Your task to perform on an android device: Open Youtube and go to the subscriptions tab Image 0: 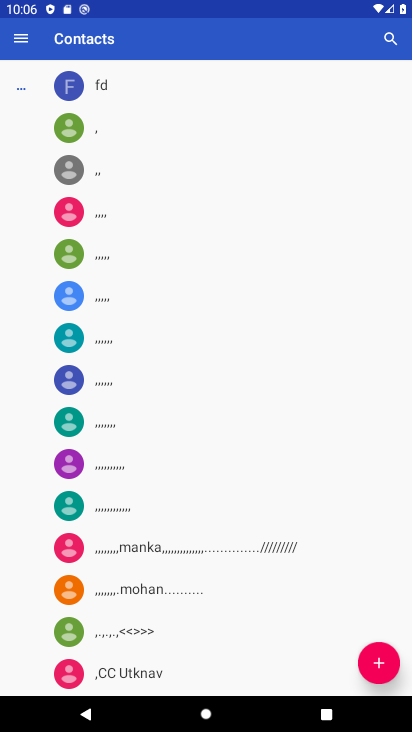
Step 0: press home button
Your task to perform on an android device: Open Youtube and go to the subscriptions tab Image 1: 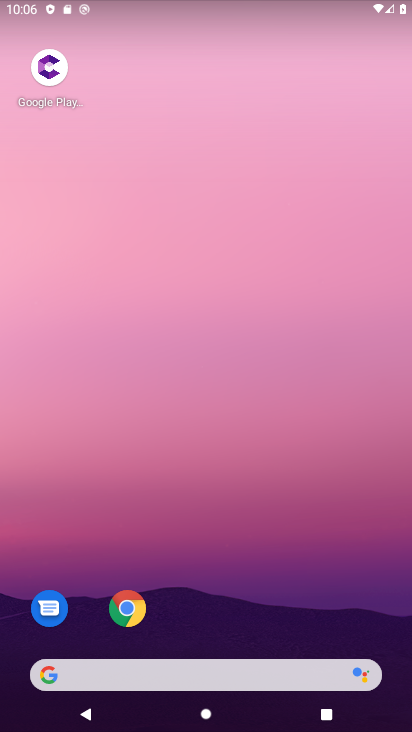
Step 1: drag from (386, 646) to (339, 160)
Your task to perform on an android device: Open Youtube and go to the subscriptions tab Image 2: 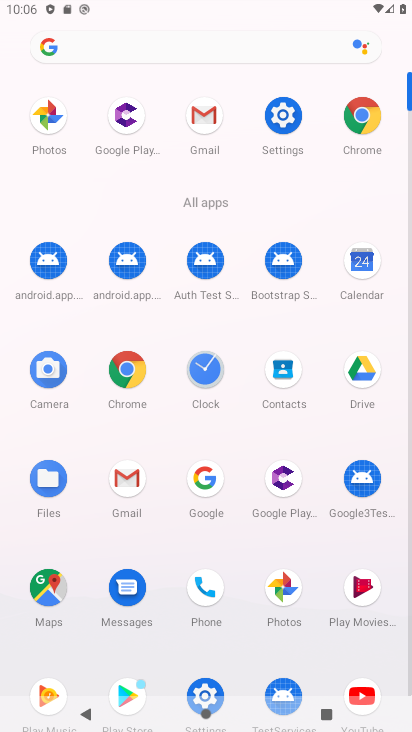
Step 2: click (409, 682)
Your task to perform on an android device: Open Youtube and go to the subscriptions tab Image 3: 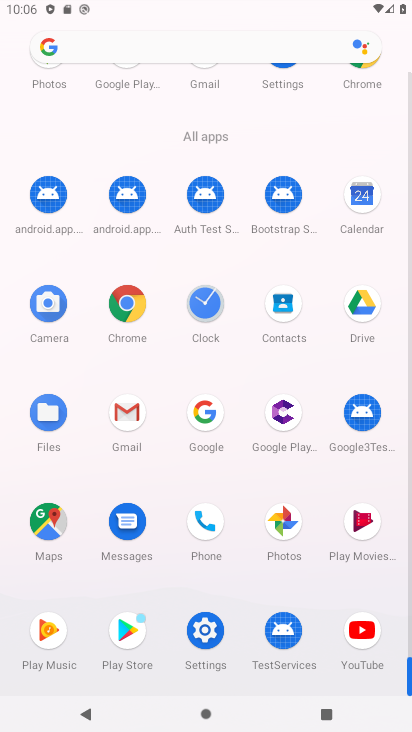
Step 3: click (361, 633)
Your task to perform on an android device: Open Youtube and go to the subscriptions tab Image 4: 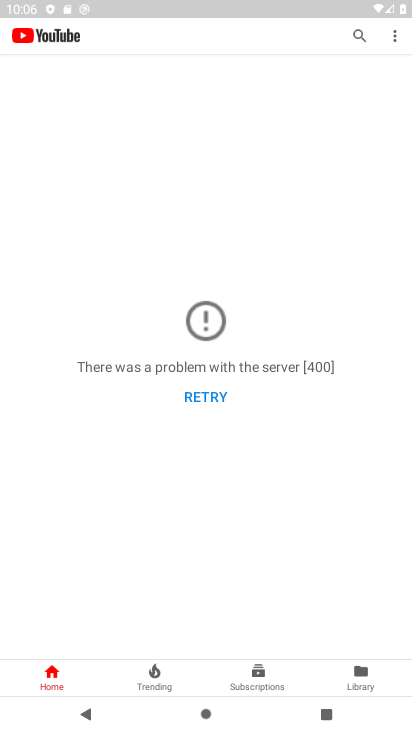
Step 4: click (259, 676)
Your task to perform on an android device: Open Youtube and go to the subscriptions tab Image 5: 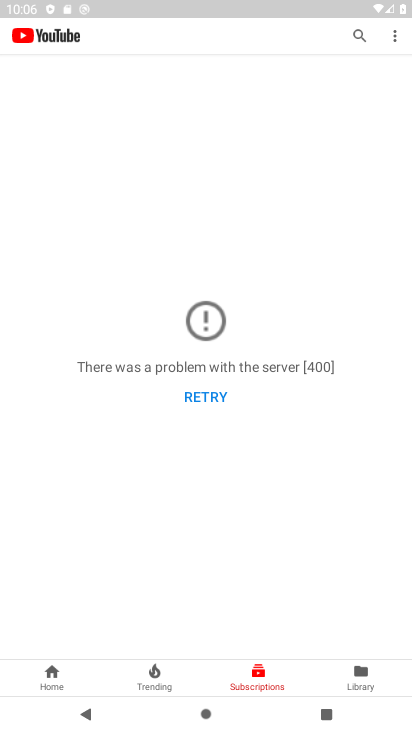
Step 5: click (200, 392)
Your task to perform on an android device: Open Youtube and go to the subscriptions tab Image 6: 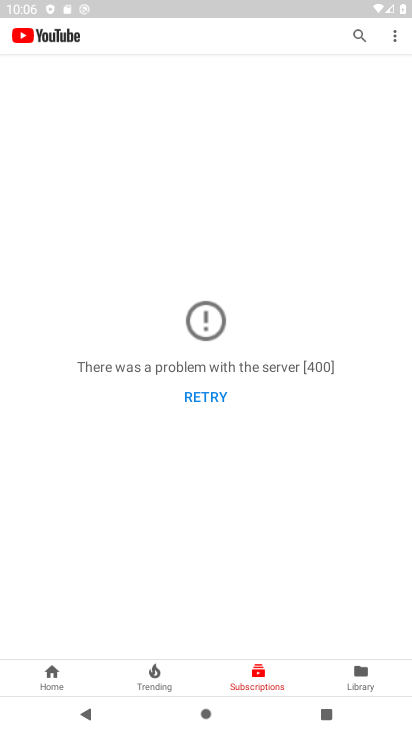
Step 6: task complete